Your task to perform on an android device: turn off picture-in-picture Image 0: 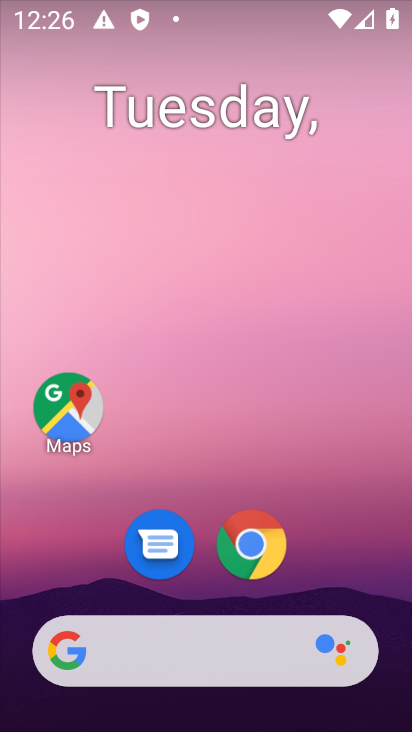
Step 0: click (262, 559)
Your task to perform on an android device: turn off picture-in-picture Image 1: 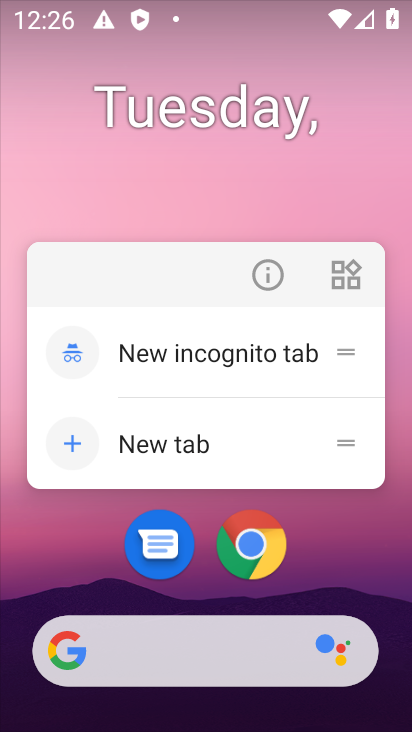
Step 1: click (259, 278)
Your task to perform on an android device: turn off picture-in-picture Image 2: 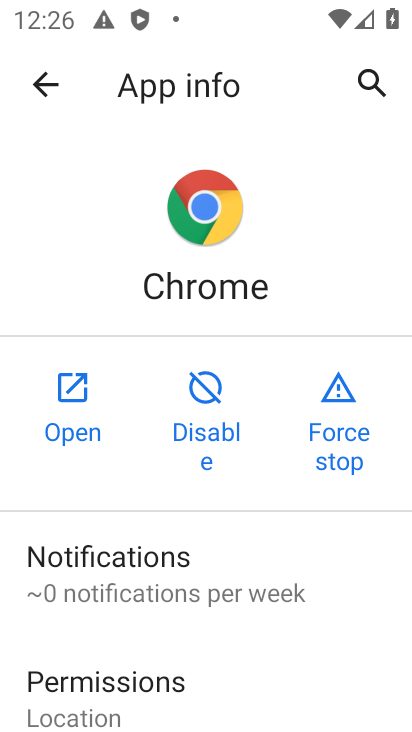
Step 2: drag from (317, 600) to (305, 58)
Your task to perform on an android device: turn off picture-in-picture Image 3: 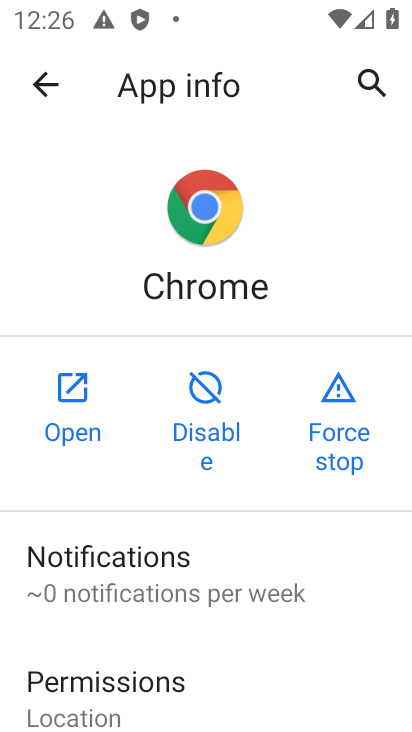
Step 3: drag from (261, 687) to (274, 131)
Your task to perform on an android device: turn off picture-in-picture Image 4: 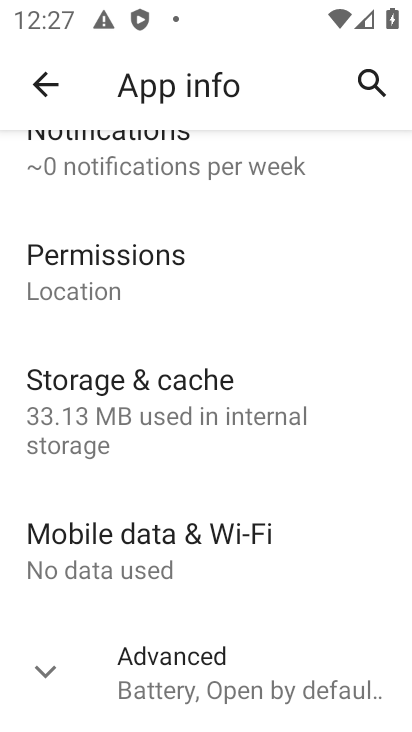
Step 4: click (166, 677)
Your task to perform on an android device: turn off picture-in-picture Image 5: 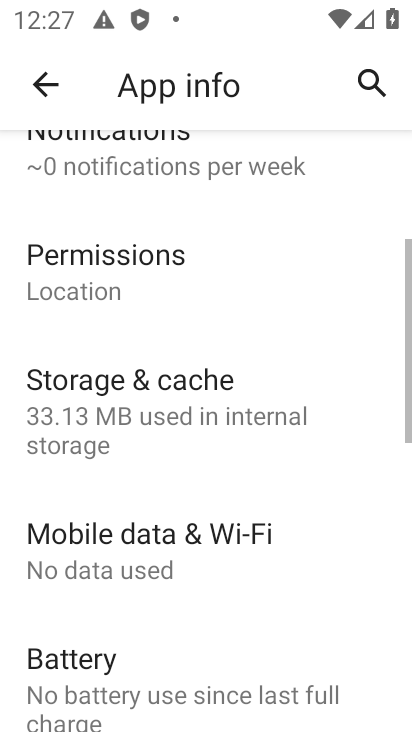
Step 5: drag from (284, 638) to (307, 152)
Your task to perform on an android device: turn off picture-in-picture Image 6: 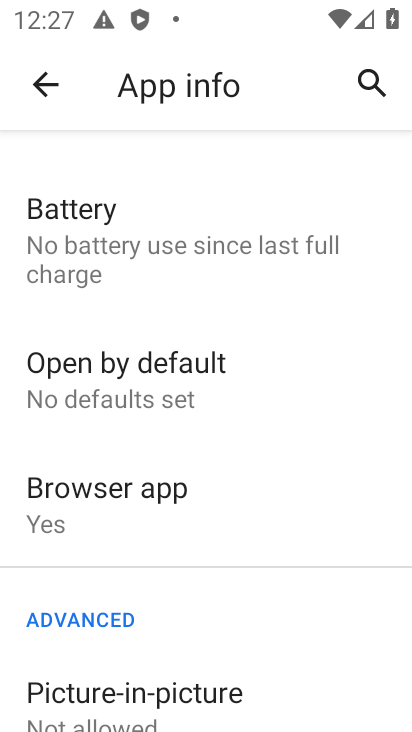
Step 6: drag from (247, 629) to (306, 245)
Your task to perform on an android device: turn off picture-in-picture Image 7: 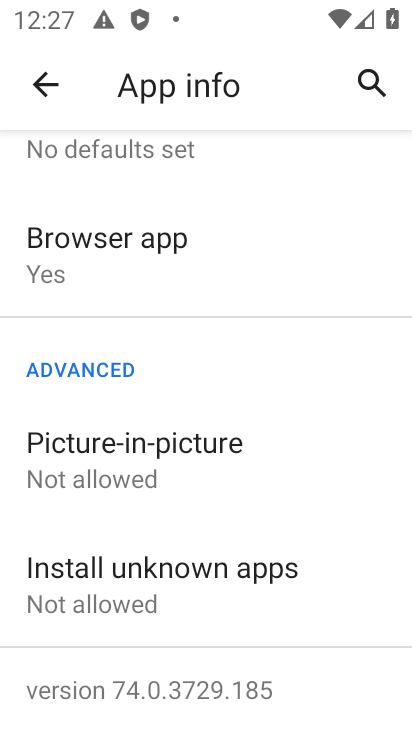
Step 7: click (207, 485)
Your task to perform on an android device: turn off picture-in-picture Image 8: 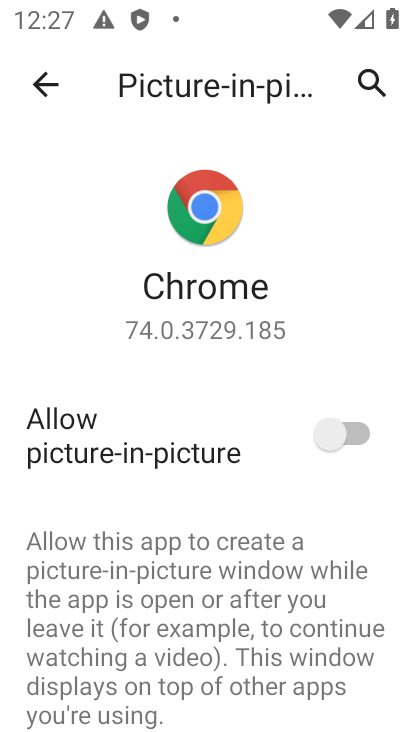
Step 8: task complete